Your task to perform on an android device: open app "Spotify" Image 0: 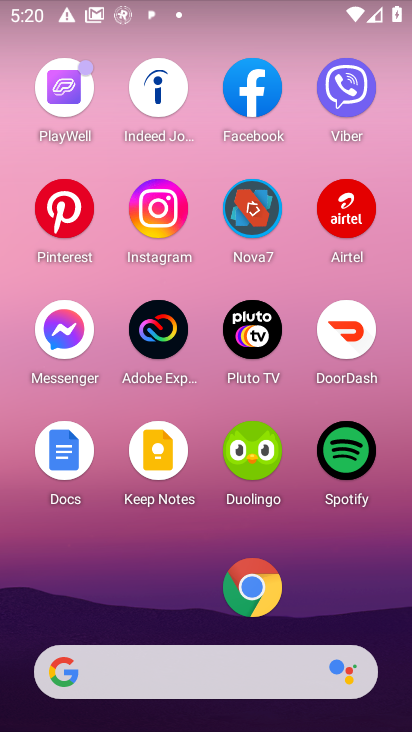
Step 0: drag from (179, 603) to (229, 75)
Your task to perform on an android device: open app "Spotify" Image 1: 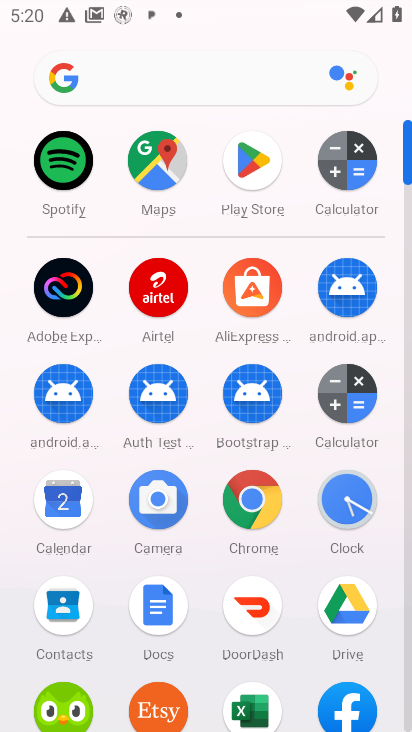
Step 1: click (248, 125)
Your task to perform on an android device: open app "Spotify" Image 2: 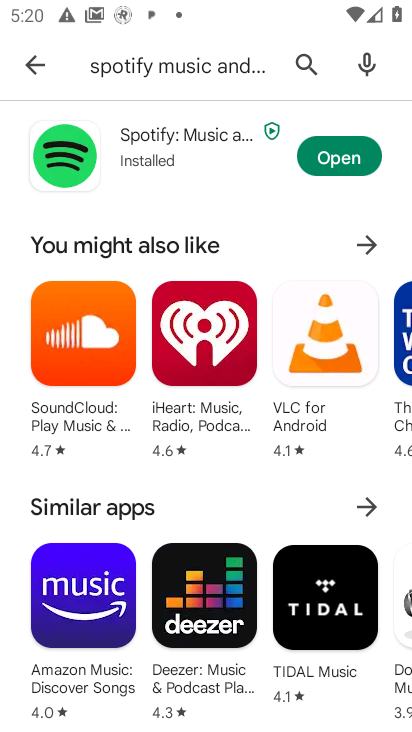
Step 2: click (317, 61)
Your task to perform on an android device: open app "Spotify" Image 3: 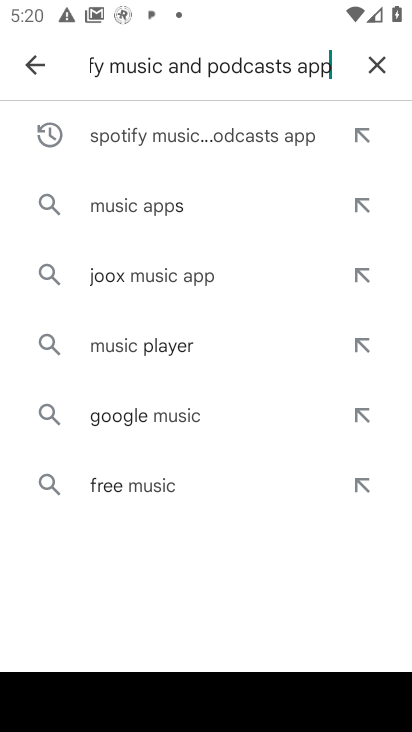
Step 3: click (384, 66)
Your task to perform on an android device: open app "Spotify" Image 4: 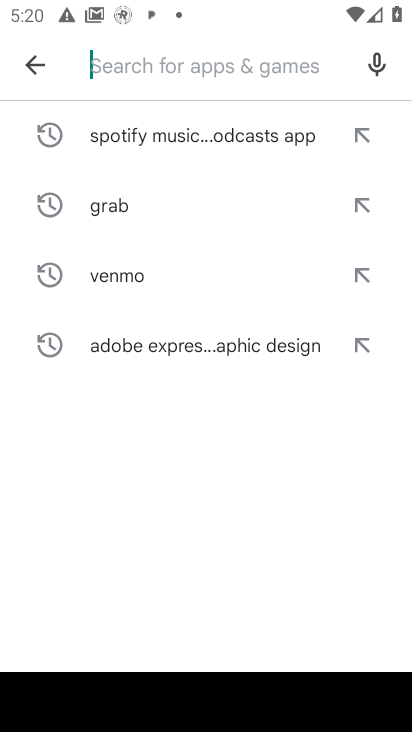
Step 4: type "Spotify"
Your task to perform on an android device: open app "Spotify" Image 5: 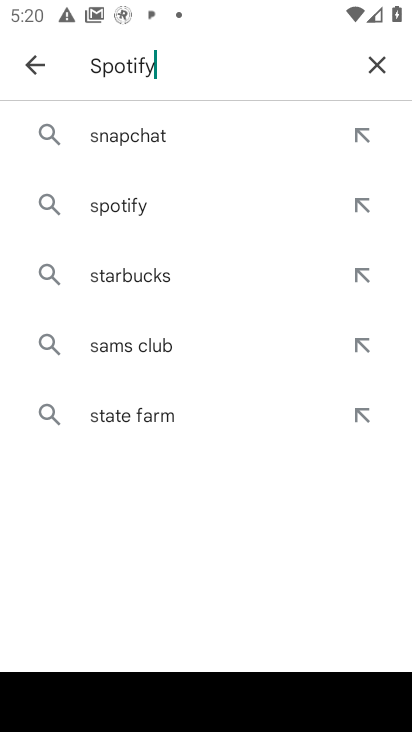
Step 5: type ""
Your task to perform on an android device: open app "Spotify" Image 6: 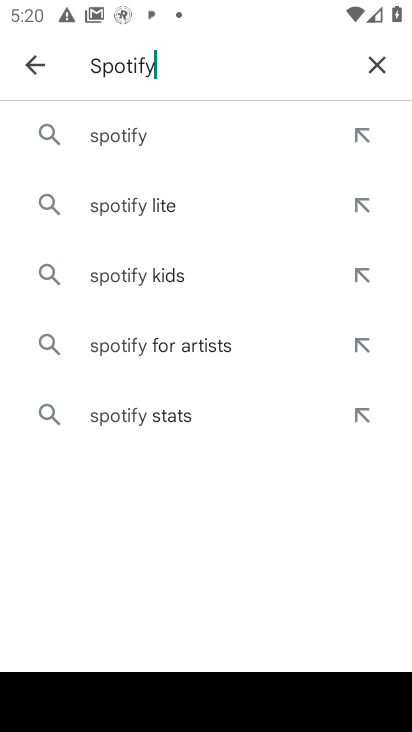
Step 6: click (116, 148)
Your task to perform on an android device: open app "Spotify" Image 7: 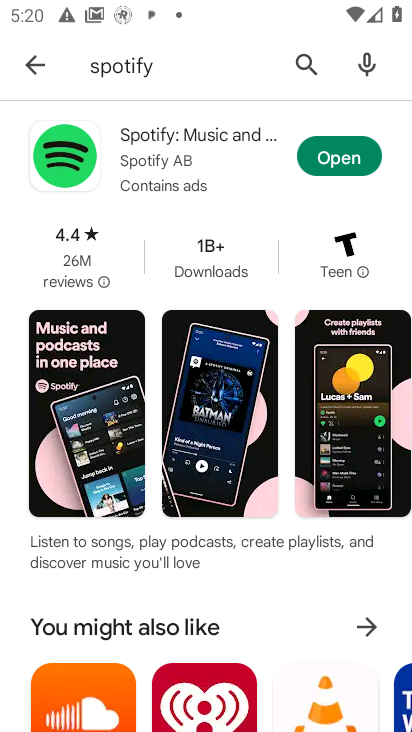
Step 7: click (346, 160)
Your task to perform on an android device: open app "Spotify" Image 8: 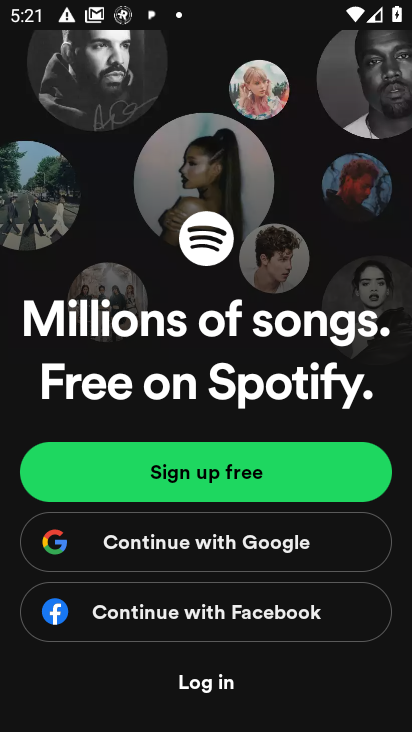
Step 8: task complete